Your task to perform on an android device: Go to eBay Image 0: 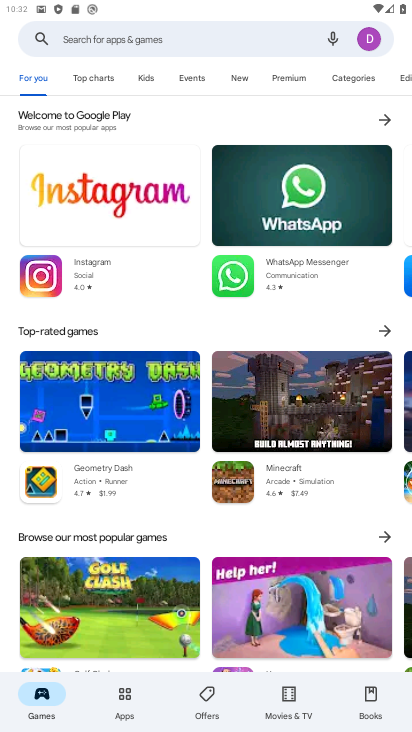
Step 0: press home button
Your task to perform on an android device: Go to eBay Image 1: 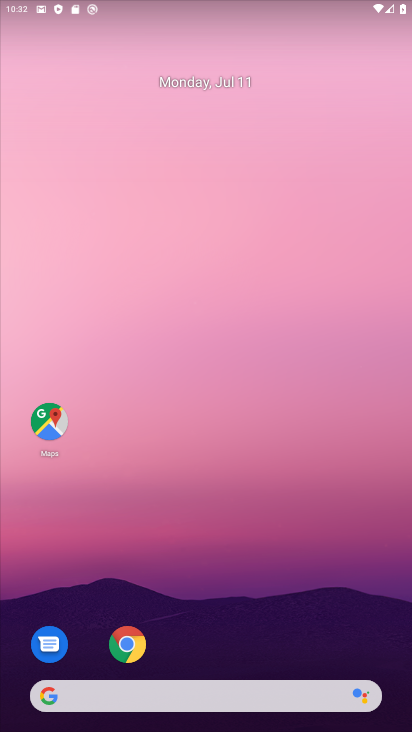
Step 1: drag from (193, 578) to (113, 61)
Your task to perform on an android device: Go to eBay Image 2: 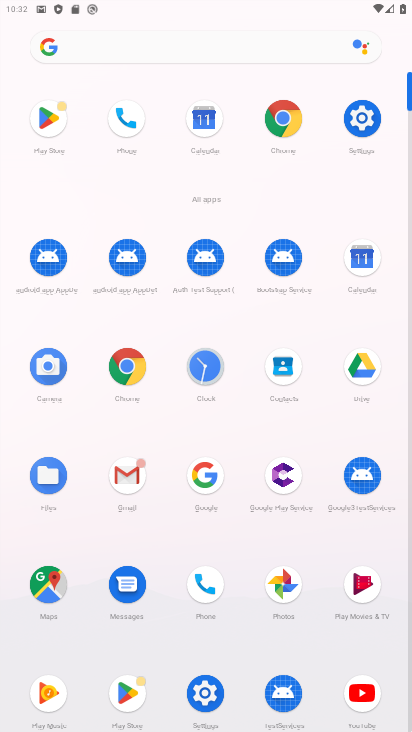
Step 2: click (286, 118)
Your task to perform on an android device: Go to eBay Image 3: 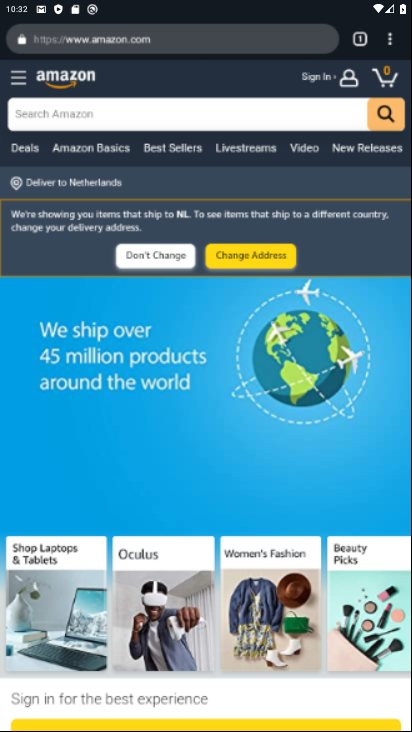
Step 3: click (394, 40)
Your task to perform on an android device: Go to eBay Image 4: 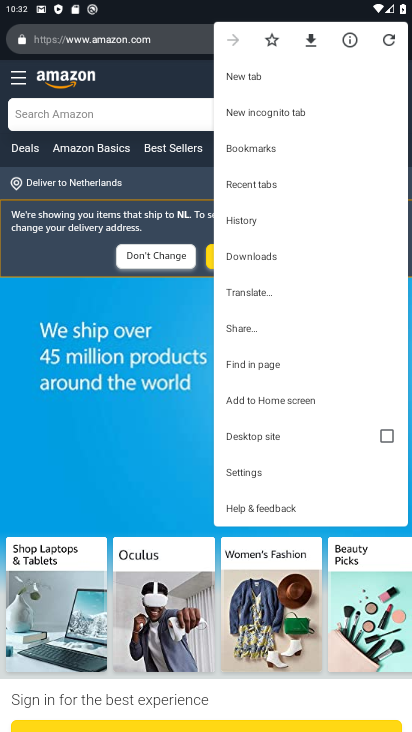
Step 4: click (254, 71)
Your task to perform on an android device: Go to eBay Image 5: 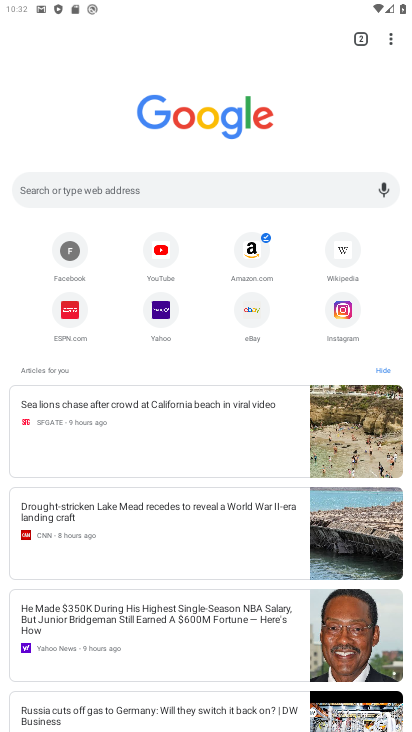
Step 5: click (248, 310)
Your task to perform on an android device: Go to eBay Image 6: 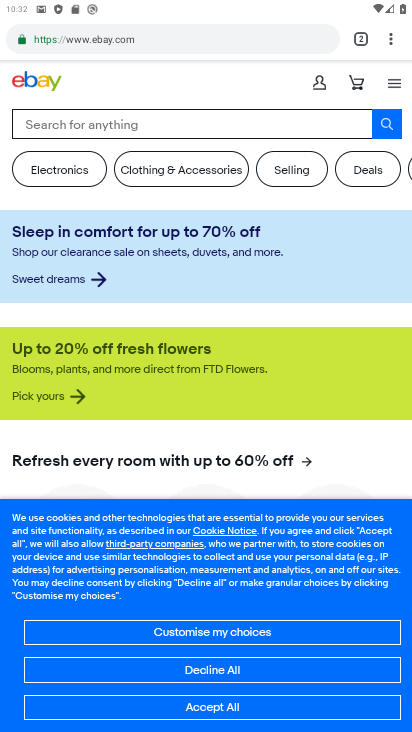
Step 6: task complete